Your task to perform on an android device: open a bookmark in the chrome app Image 0: 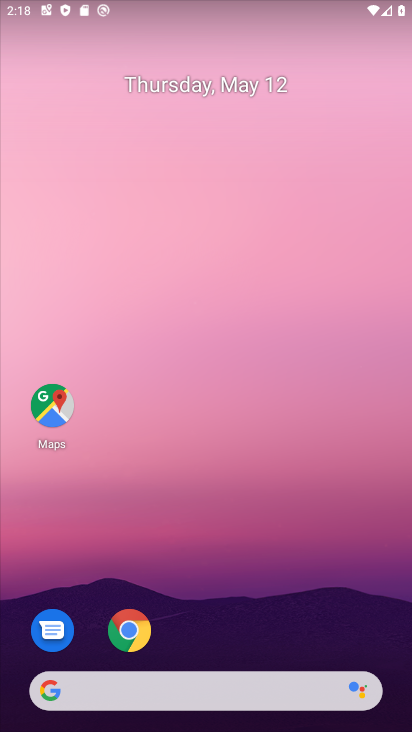
Step 0: click (131, 632)
Your task to perform on an android device: open a bookmark in the chrome app Image 1: 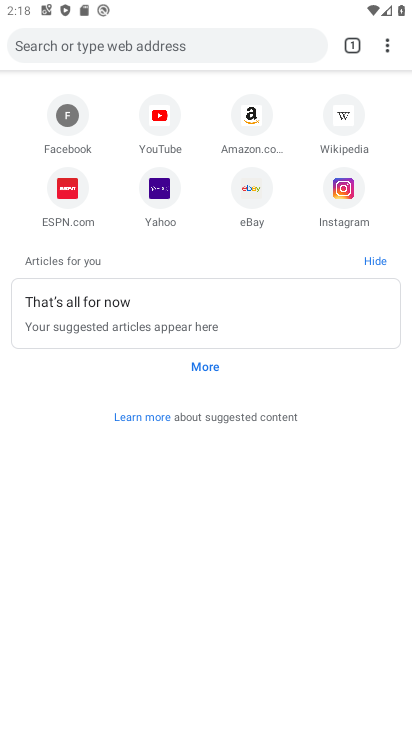
Step 1: click (386, 45)
Your task to perform on an android device: open a bookmark in the chrome app Image 2: 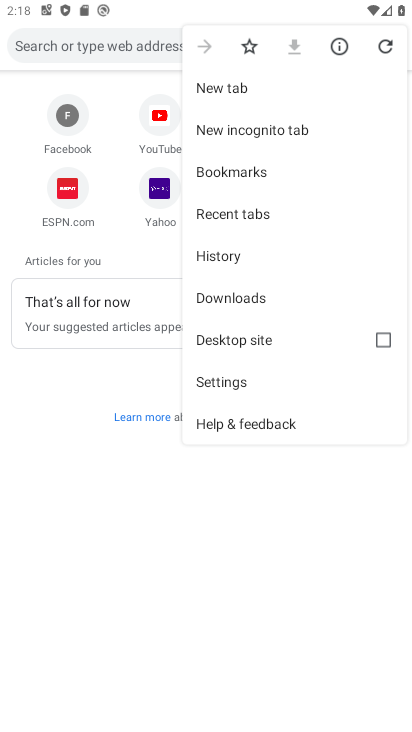
Step 2: click (230, 175)
Your task to perform on an android device: open a bookmark in the chrome app Image 3: 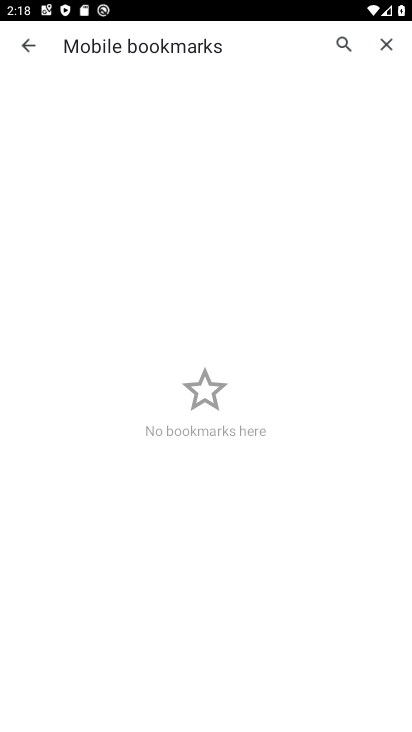
Step 3: task complete